Your task to perform on an android device: Play the last video I watched on Youtube Image 0: 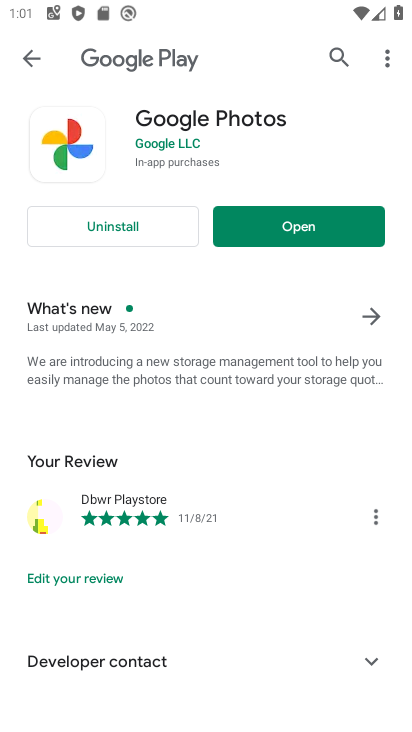
Step 0: press home button
Your task to perform on an android device: Play the last video I watched on Youtube Image 1: 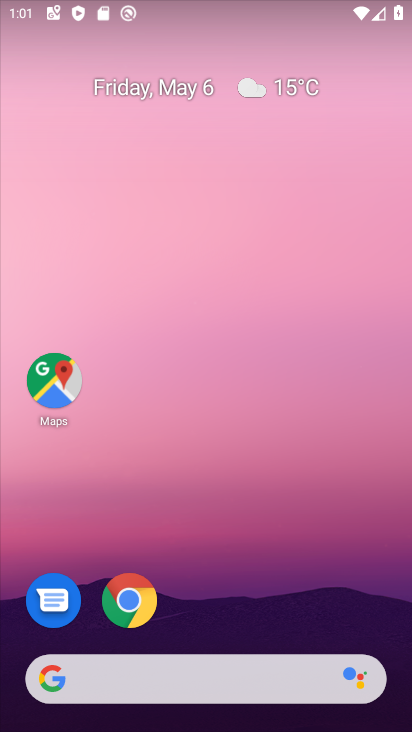
Step 1: drag from (376, 629) to (303, 81)
Your task to perform on an android device: Play the last video I watched on Youtube Image 2: 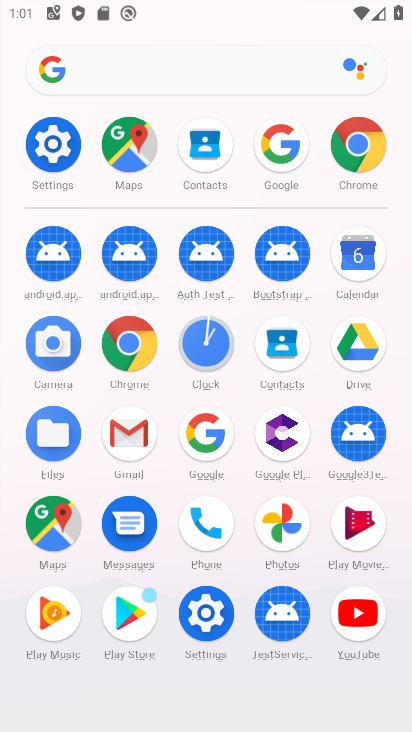
Step 2: click (353, 634)
Your task to perform on an android device: Play the last video I watched on Youtube Image 3: 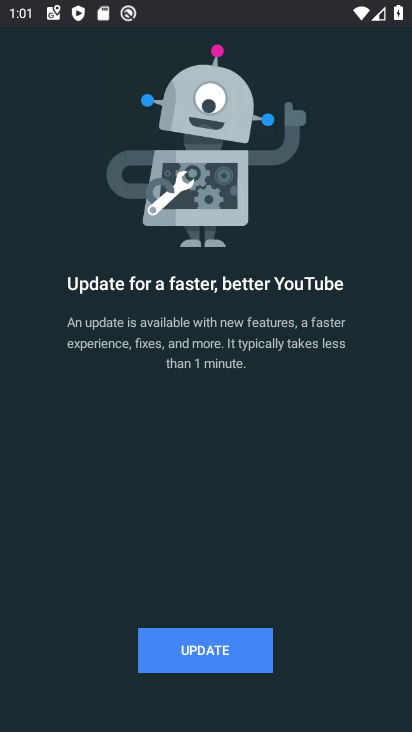
Step 3: click (208, 670)
Your task to perform on an android device: Play the last video I watched on Youtube Image 4: 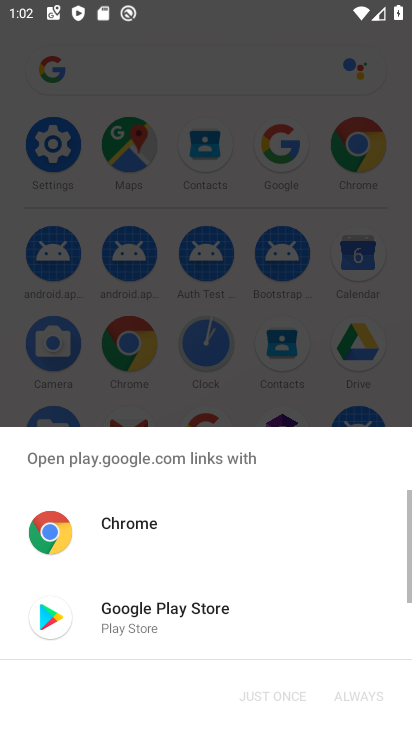
Step 4: click (179, 621)
Your task to perform on an android device: Play the last video I watched on Youtube Image 5: 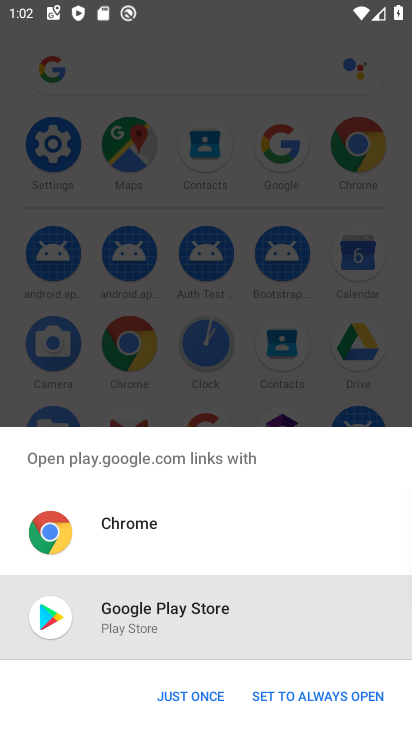
Step 5: click (188, 702)
Your task to perform on an android device: Play the last video I watched on Youtube Image 6: 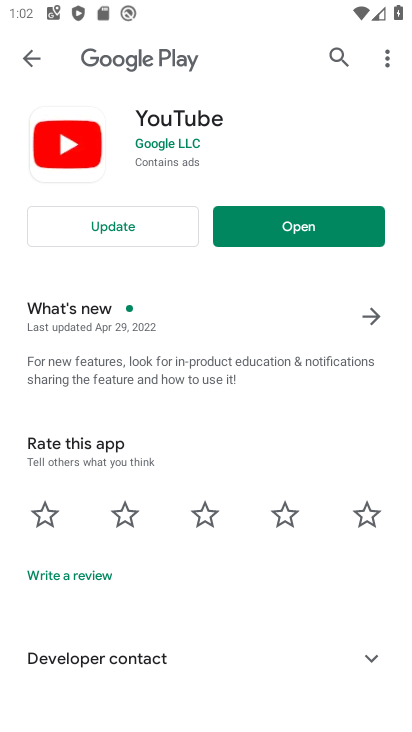
Step 6: click (114, 225)
Your task to perform on an android device: Play the last video I watched on Youtube Image 7: 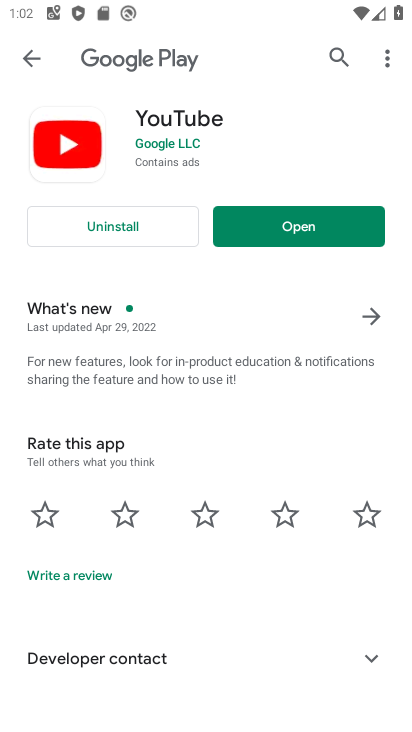
Step 7: click (270, 238)
Your task to perform on an android device: Play the last video I watched on Youtube Image 8: 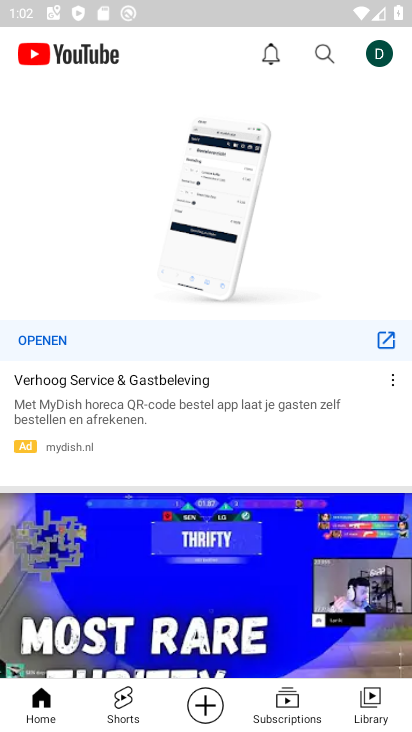
Step 8: click (379, 701)
Your task to perform on an android device: Play the last video I watched on Youtube Image 9: 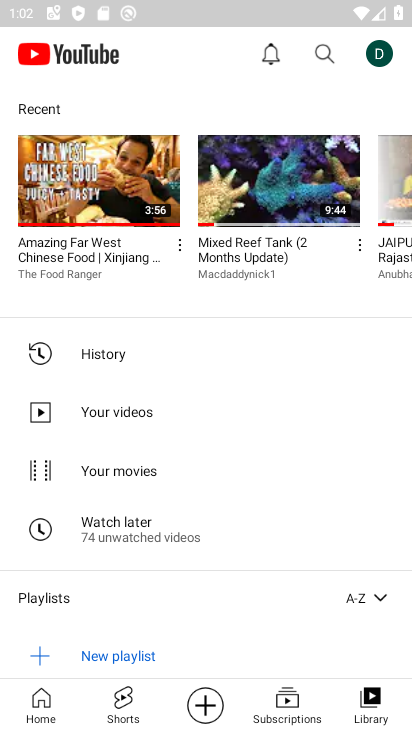
Step 9: click (70, 198)
Your task to perform on an android device: Play the last video I watched on Youtube Image 10: 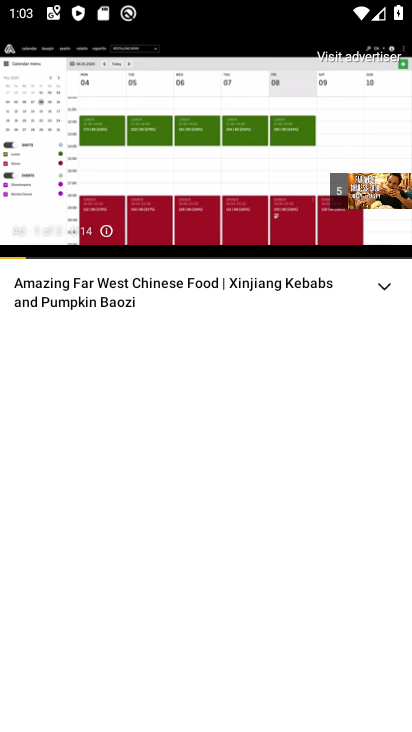
Step 10: click (206, 149)
Your task to perform on an android device: Play the last video I watched on Youtube Image 11: 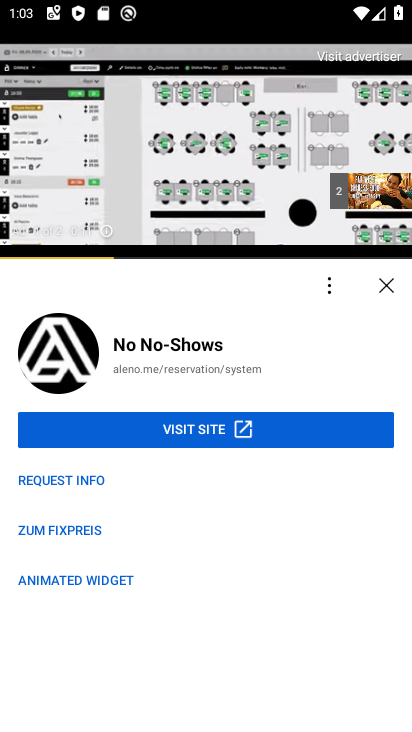
Step 11: click (387, 280)
Your task to perform on an android device: Play the last video I watched on Youtube Image 12: 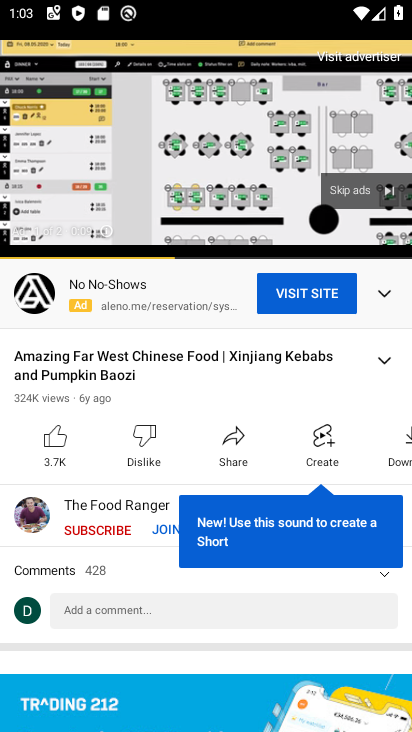
Step 12: click (366, 192)
Your task to perform on an android device: Play the last video I watched on Youtube Image 13: 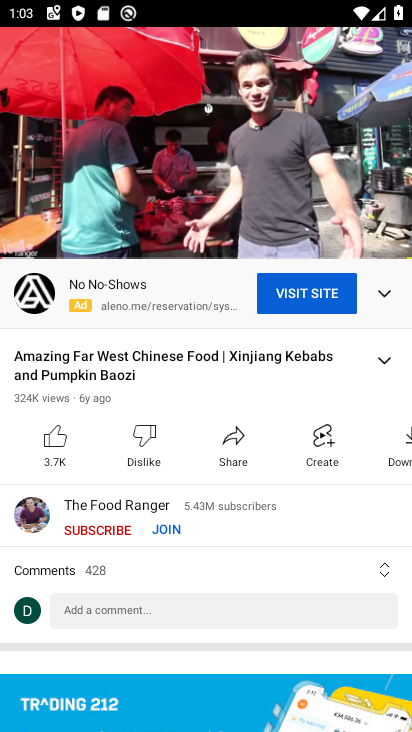
Step 13: click (193, 154)
Your task to perform on an android device: Play the last video I watched on Youtube Image 14: 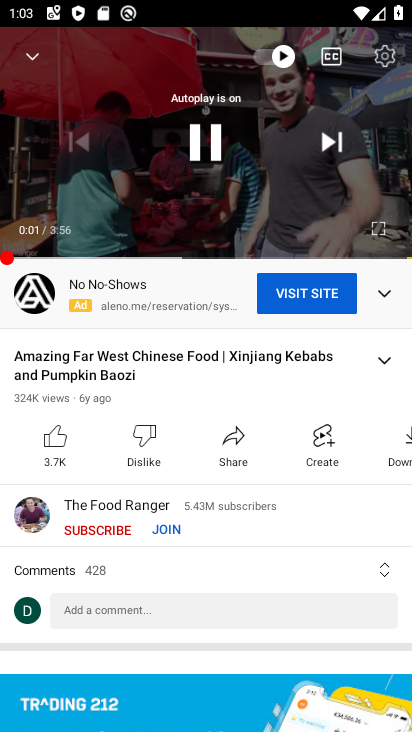
Step 14: click (193, 154)
Your task to perform on an android device: Play the last video I watched on Youtube Image 15: 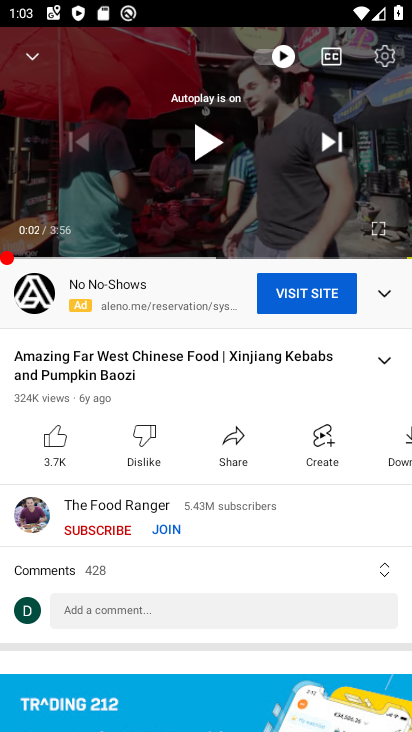
Step 15: task complete